Your task to perform on an android device: What's the weather going to be tomorrow? Image 0: 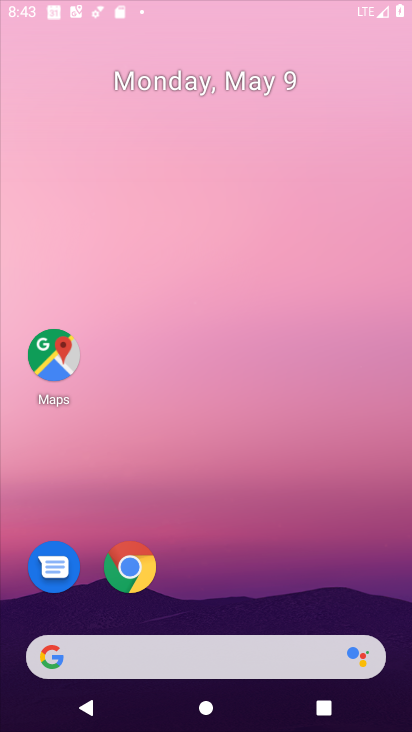
Step 0: click (251, 118)
Your task to perform on an android device: What's the weather going to be tomorrow? Image 1: 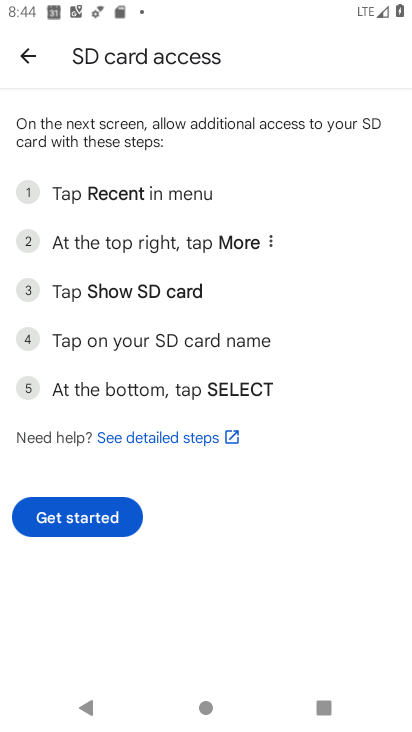
Step 1: press home button
Your task to perform on an android device: What's the weather going to be tomorrow? Image 2: 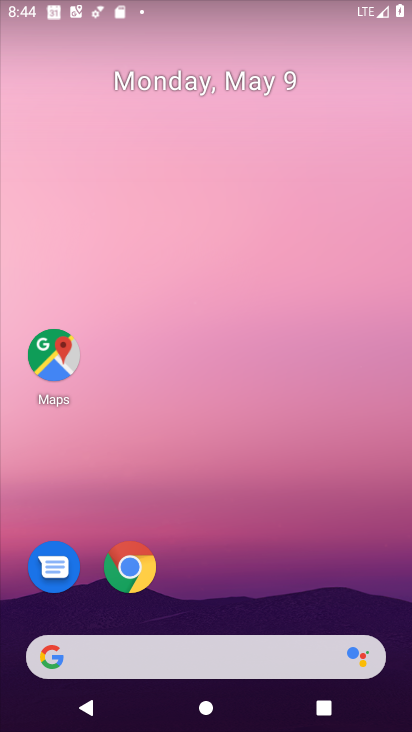
Step 2: click (183, 661)
Your task to perform on an android device: What's the weather going to be tomorrow? Image 3: 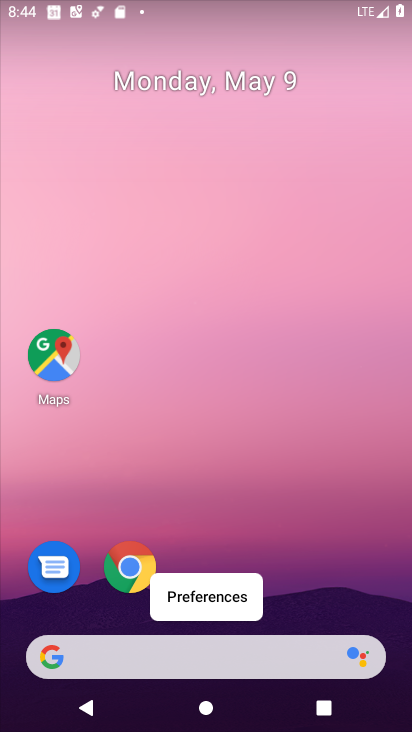
Step 3: click (159, 657)
Your task to perform on an android device: What's the weather going to be tomorrow? Image 4: 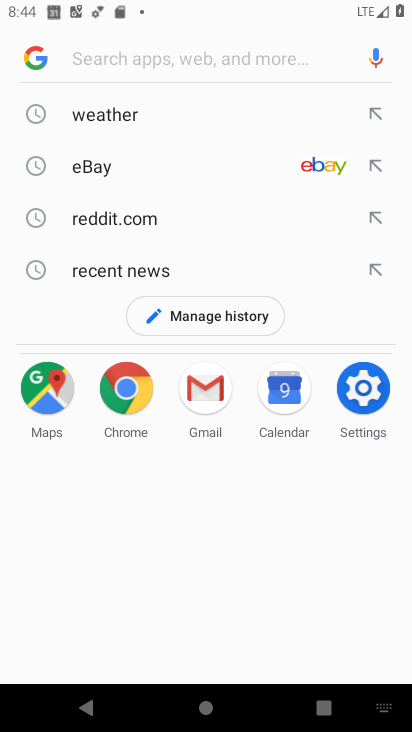
Step 4: type "weather tomorrow"
Your task to perform on an android device: What's the weather going to be tomorrow? Image 5: 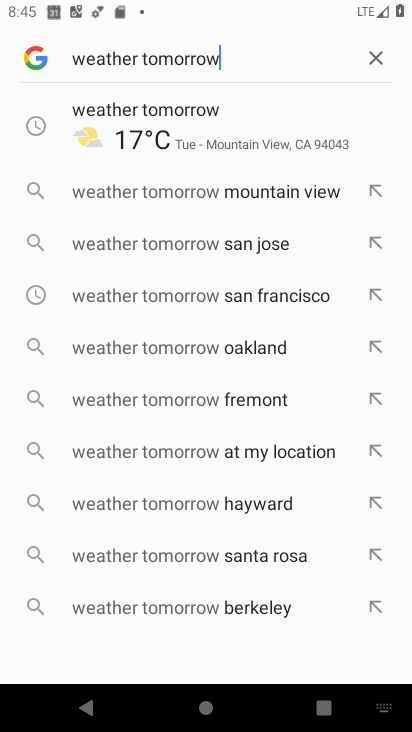
Step 5: click (179, 120)
Your task to perform on an android device: What's the weather going to be tomorrow? Image 6: 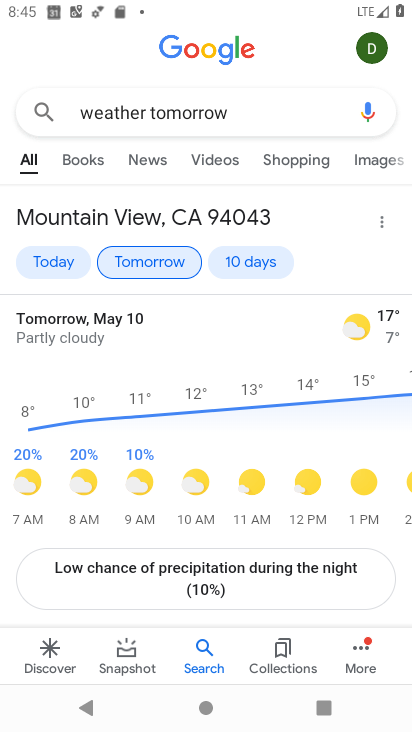
Step 6: task complete